Your task to perform on an android device: toggle airplane mode Image 0: 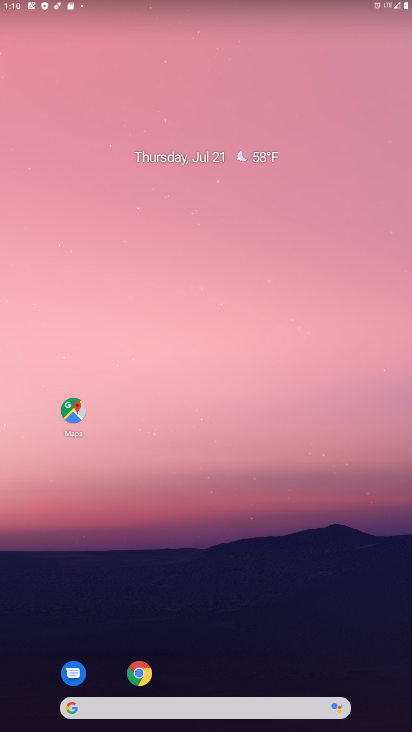
Step 0: drag from (201, 650) to (209, 260)
Your task to perform on an android device: toggle airplane mode Image 1: 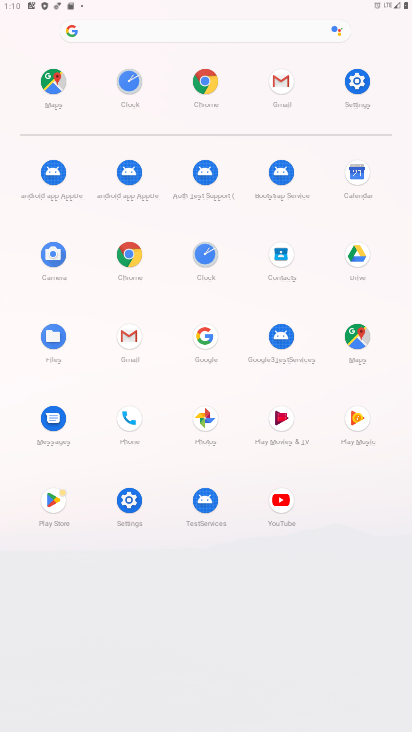
Step 1: click (352, 77)
Your task to perform on an android device: toggle airplane mode Image 2: 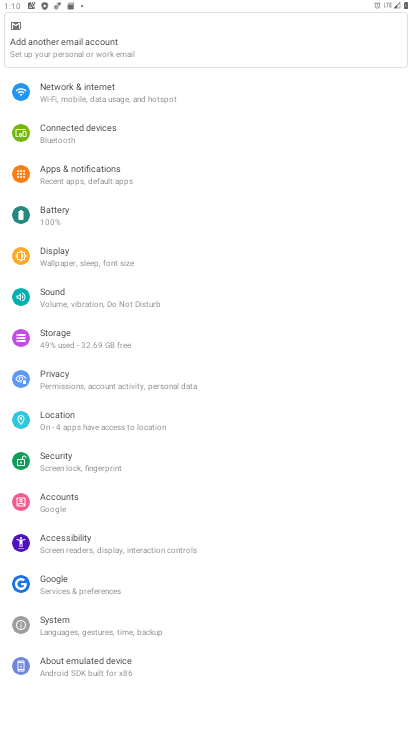
Step 2: click (94, 85)
Your task to perform on an android device: toggle airplane mode Image 3: 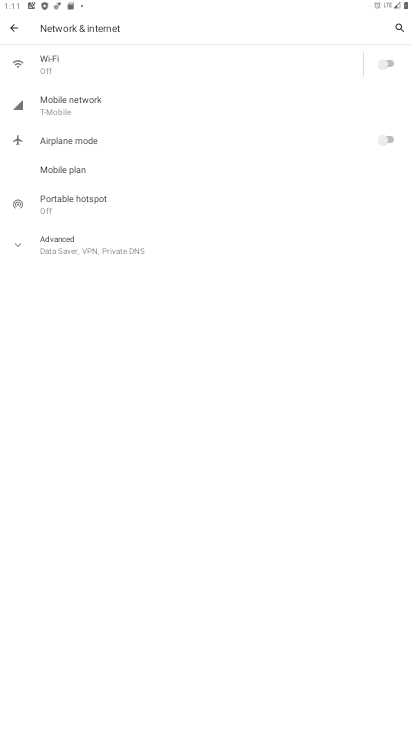
Step 3: click (100, 132)
Your task to perform on an android device: toggle airplane mode Image 4: 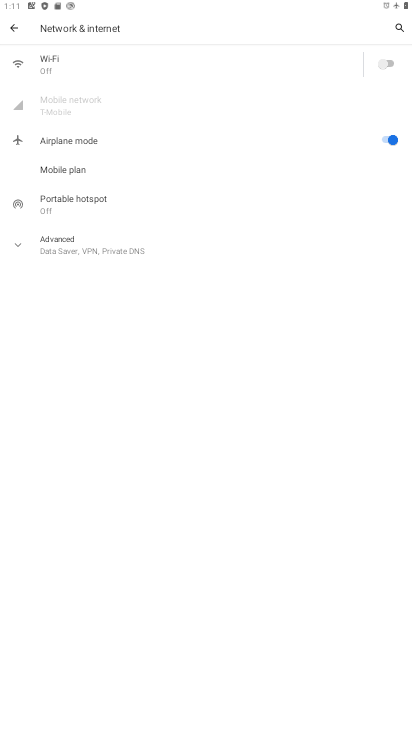
Step 4: task complete